Your task to perform on an android device: What is the recent news? Image 0: 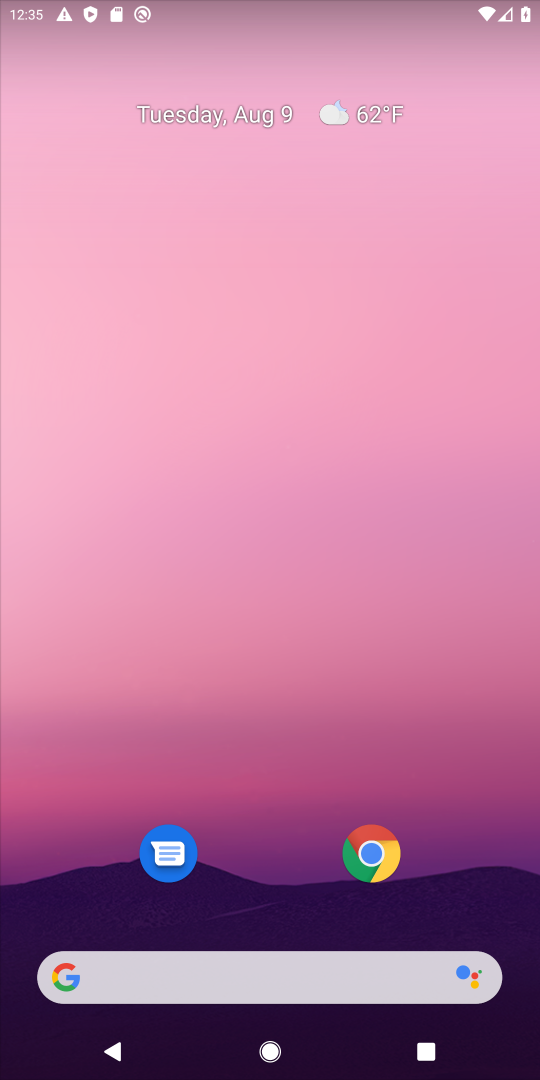
Step 0: click (266, 909)
Your task to perform on an android device: What is the recent news? Image 1: 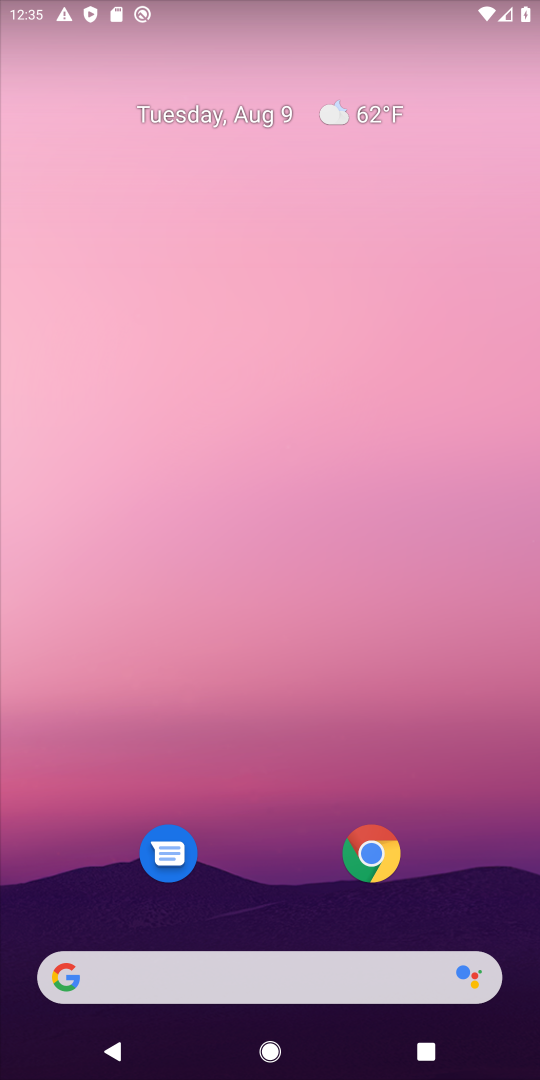
Step 1: click (68, 977)
Your task to perform on an android device: What is the recent news? Image 2: 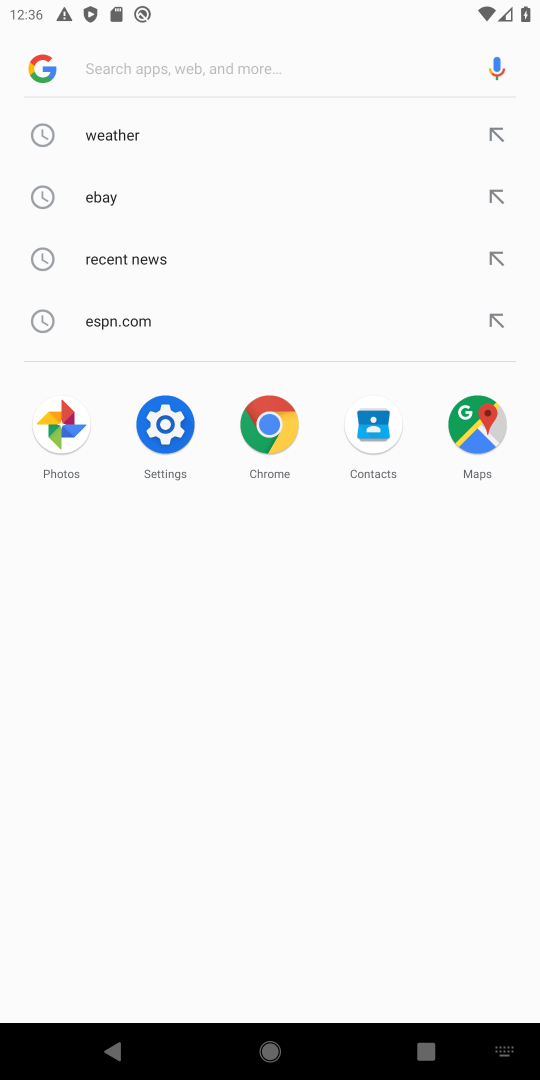
Step 2: type " recent news?"
Your task to perform on an android device: What is the recent news? Image 3: 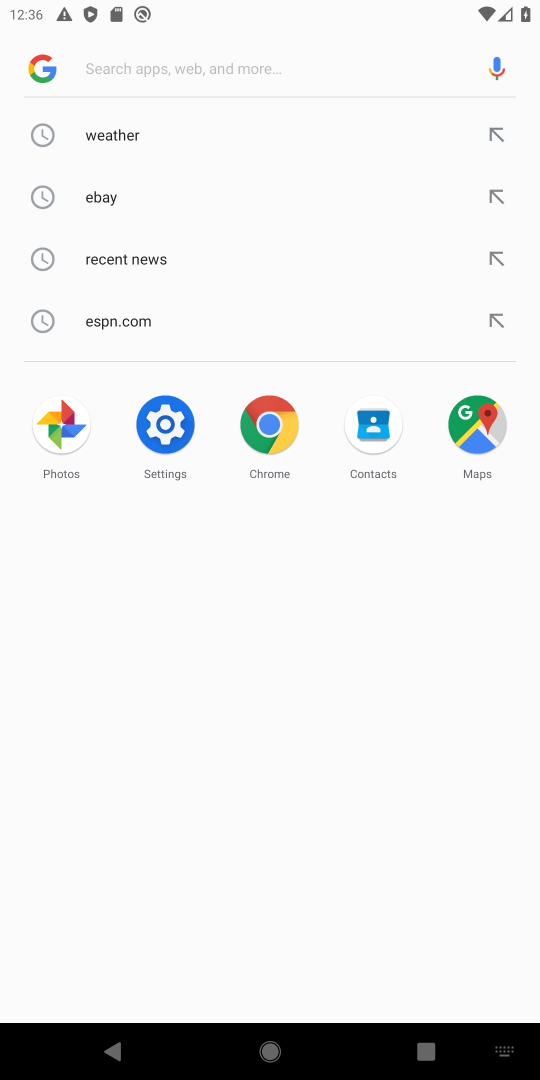
Step 3: click (156, 65)
Your task to perform on an android device: What is the recent news? Image 4: 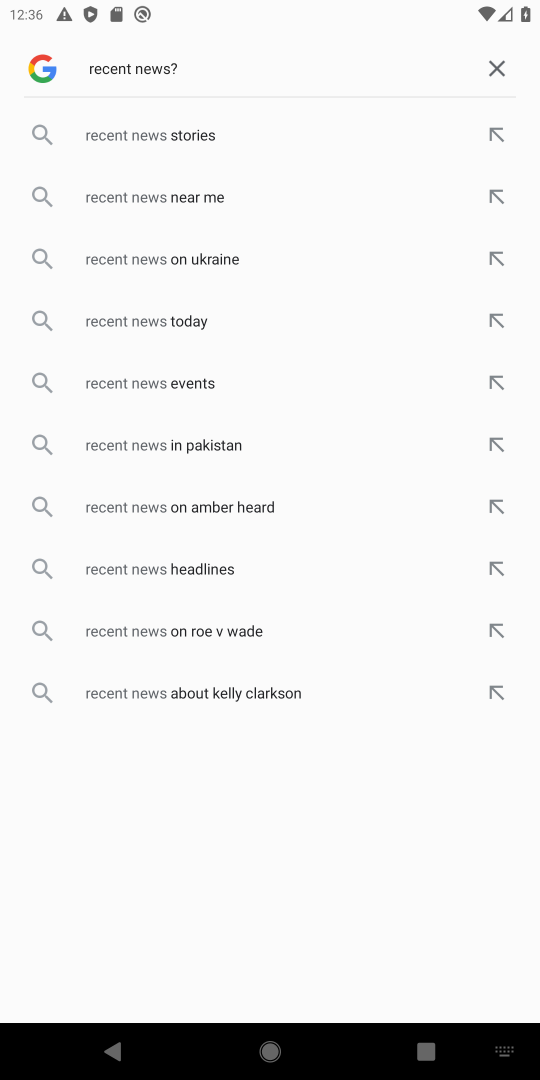
Step 4: press enter
Your task to perform on an android device: What is the recent news? Image 5: 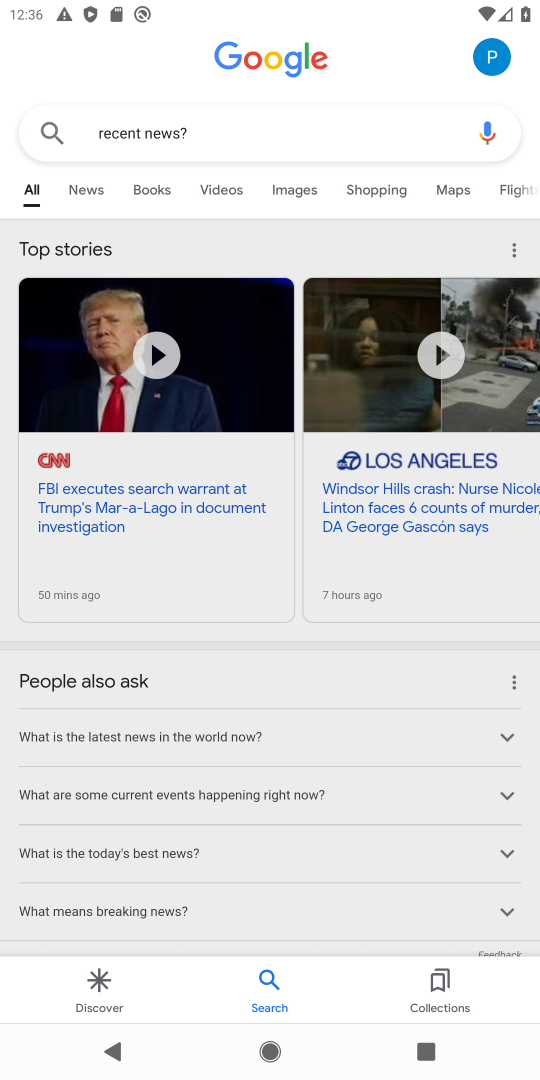
Step 5: task complete